Your task to perform on an android device: Go to sound settings Image 0: 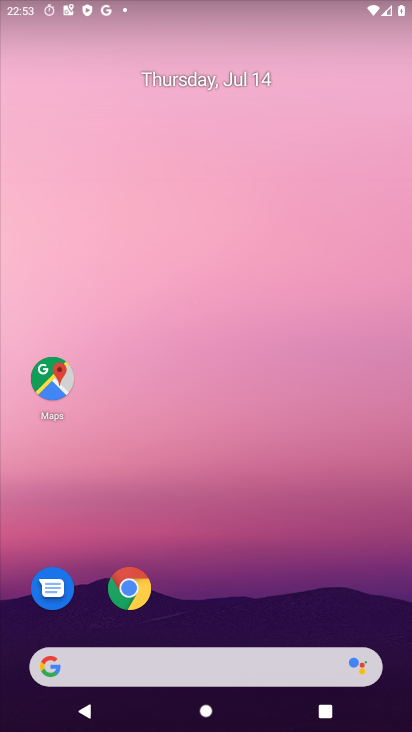
Step 0: drag from (233, 607) to (194, 172)
Your task to perform on an android device: Go to sound settings Image 1: 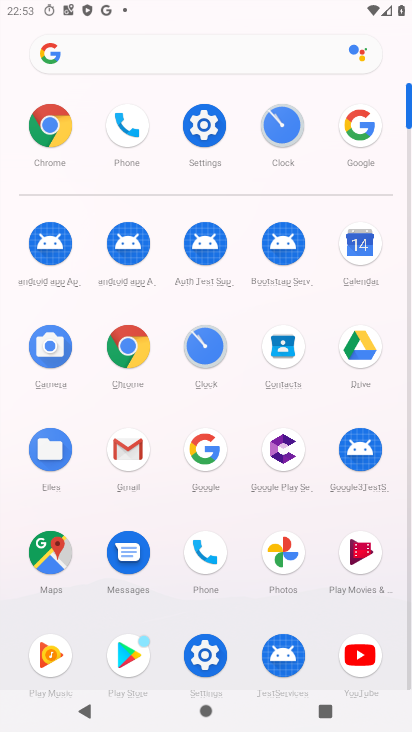
Step 1: click (203, 126)
Your task to perform on an android device: Go to sound settings Image 2: 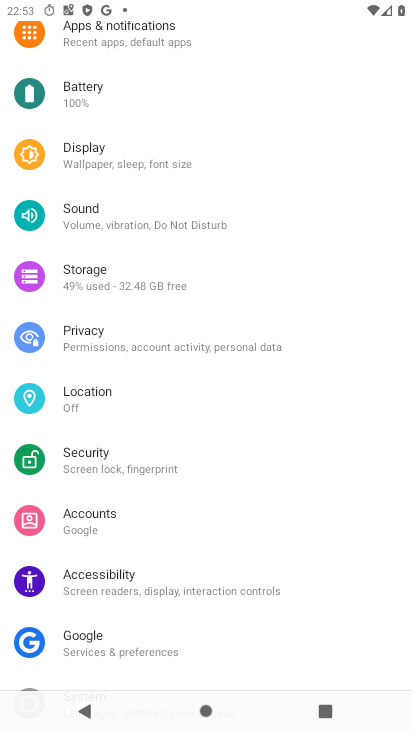
Step 2: click (113, 204)
Your task to perform on an android device: Go to sound settings Image 3: 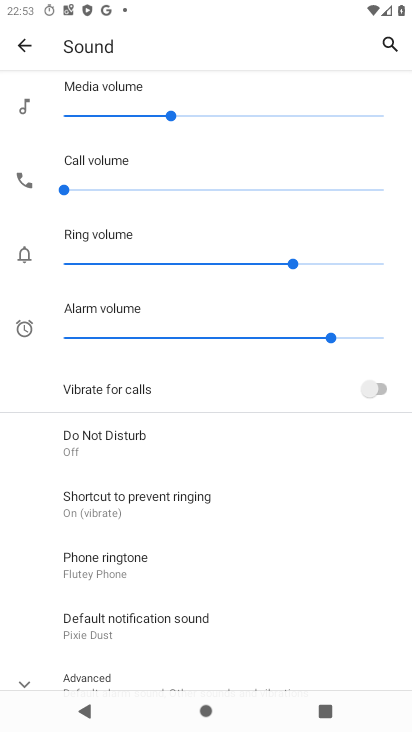
Step 3: task complete